Your task to perform on an android device: Open accessibility settings Image 0: 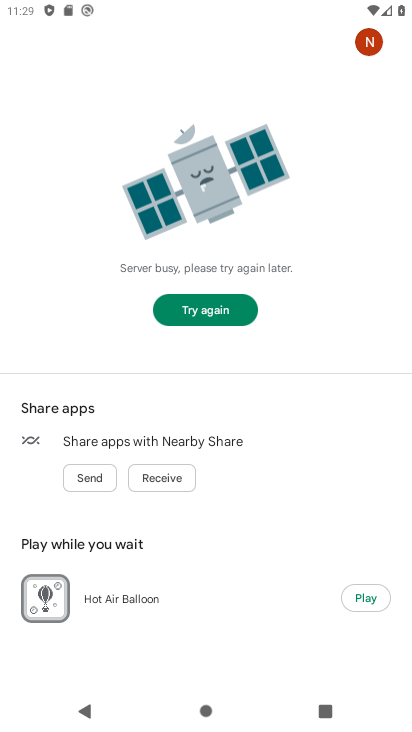
Step 0: press home button
Your task to perform on an android device: Open accessibility settings Image 1: 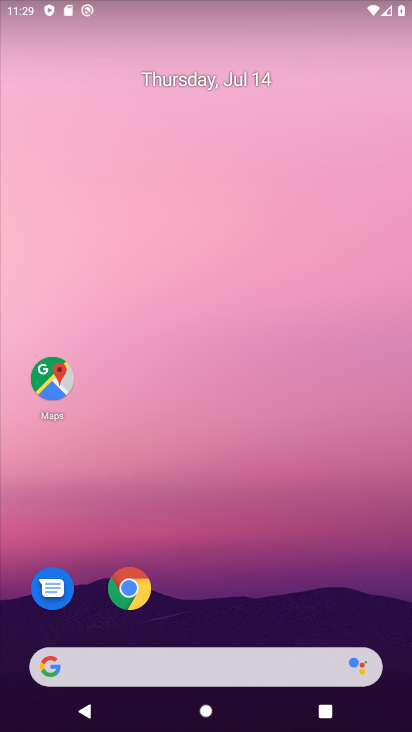
Step 1: drag from (233, 642) to (381, 17)
Your task to perform on an android device: Open accessibility settings Image 2: 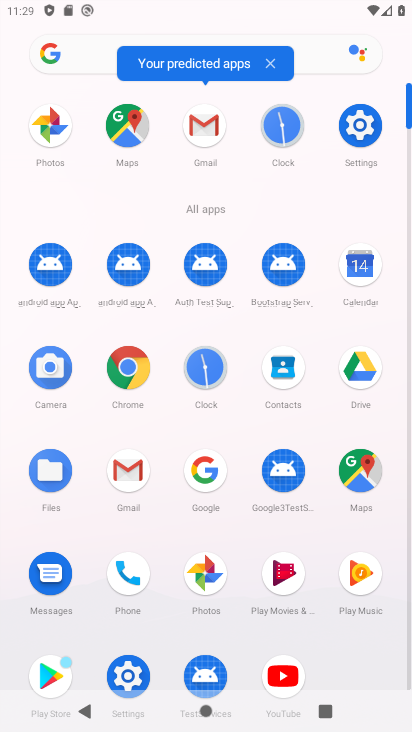
Step 2: click (127, 676)
Your task to perform on an android device: Open accessibility settings Image 3: 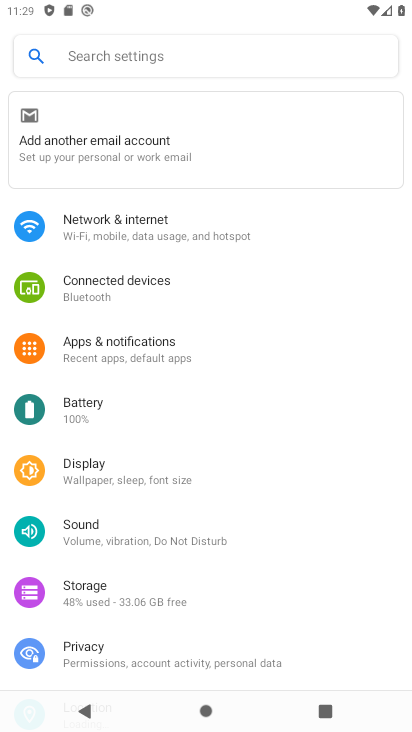
Step 3: drag from (128, 662) to (268, 64)
Your task to perform on an android device: Open accessibility settings Image 4: 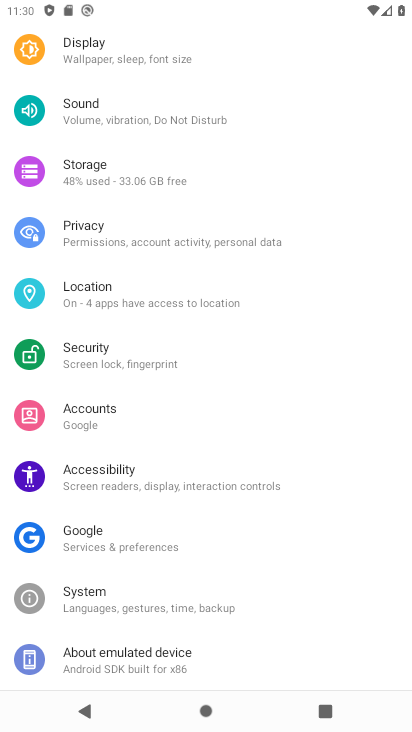
Step 4: click (125, 473)
Your task to perform on an android device: Open accessibility settings Image 5: 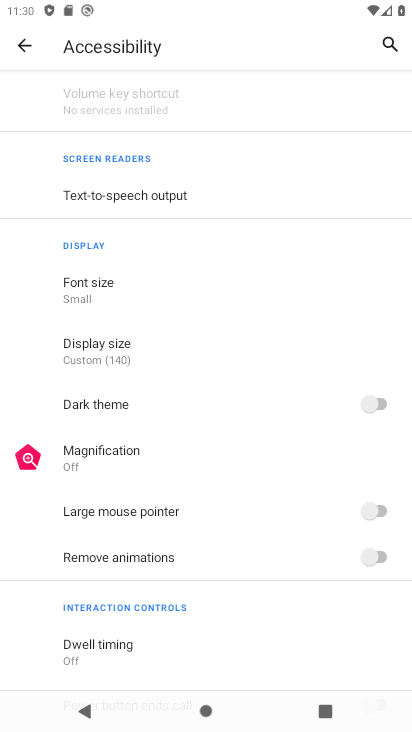
Step 5: task complete